Your task to perform on an android device: turn on notifications settings in the gmail app Image 0: 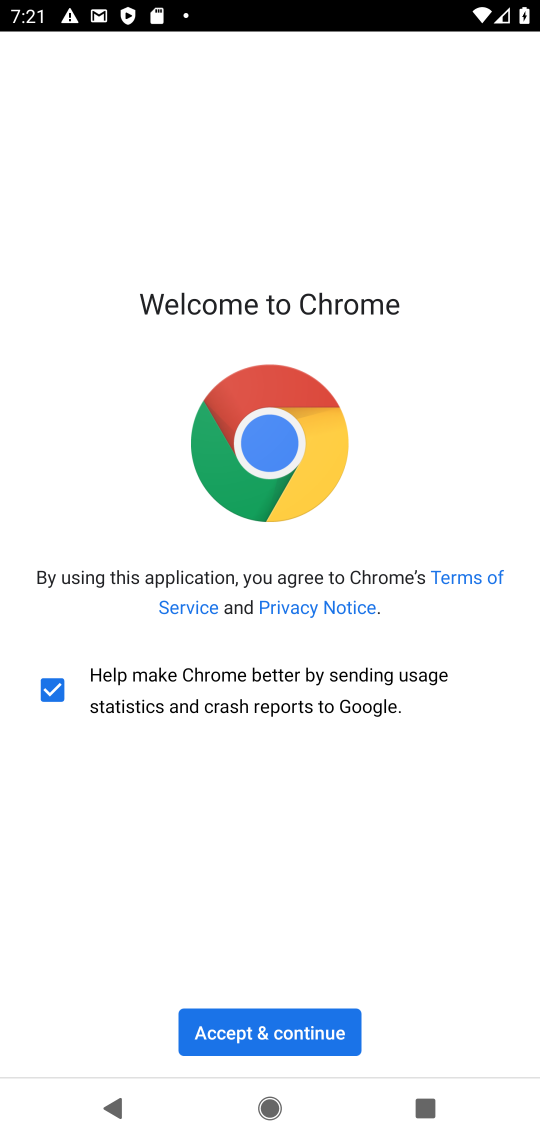
Step 0: press home button
Your task to perform on an android device: turn on notifications settings in the gmail app Image 1: 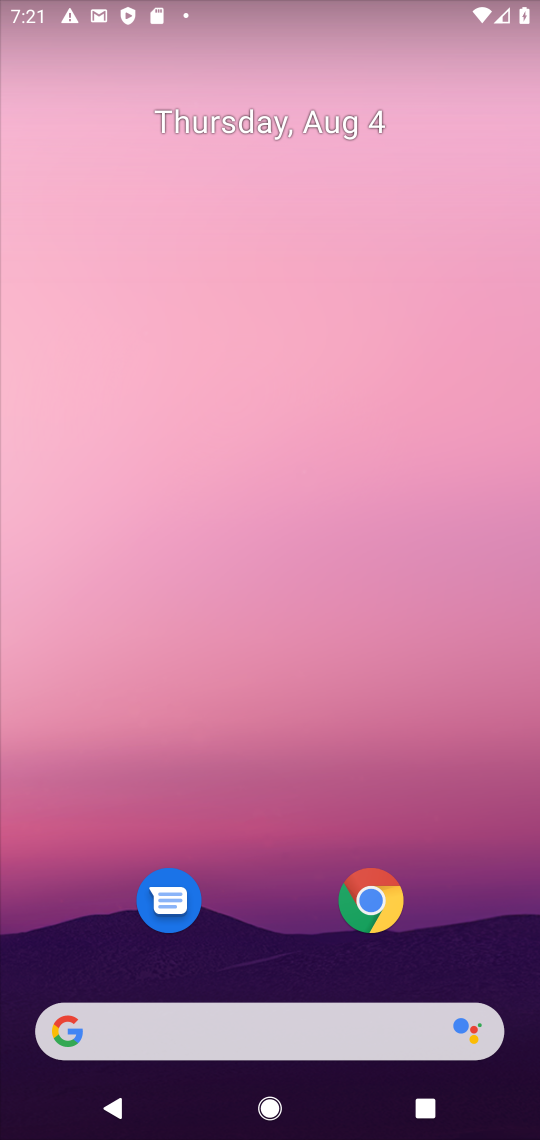
Step 1: drag from (223, 1009) to (342, 162)
Your task to perform on an android device: turn on notifications settings in the gmail app Image 2: 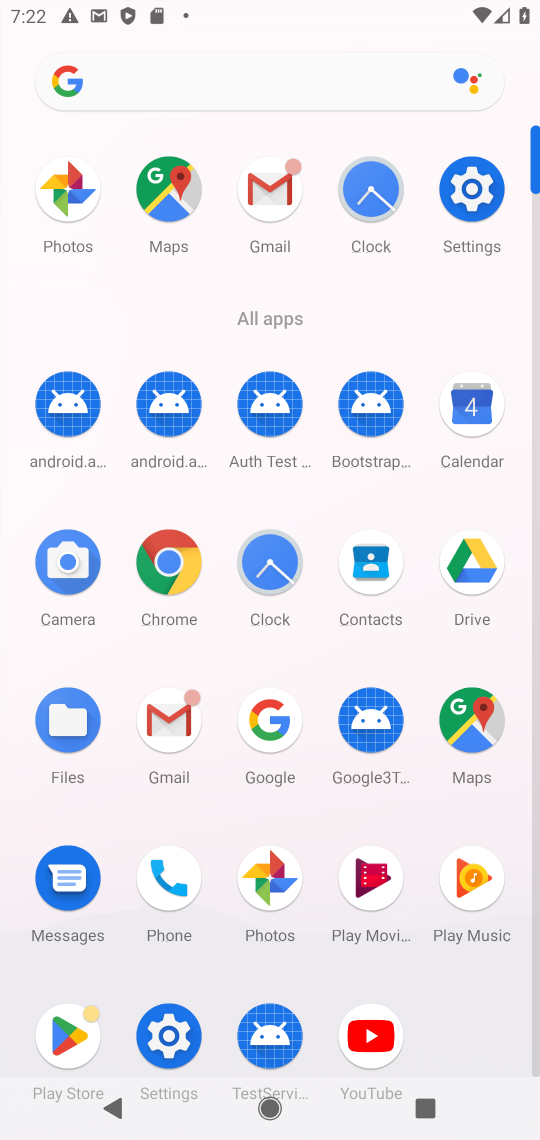
Step 2: click (269, 192)
Your task to perform on an android device: turn on notifications settings in the gmail app Image 3: 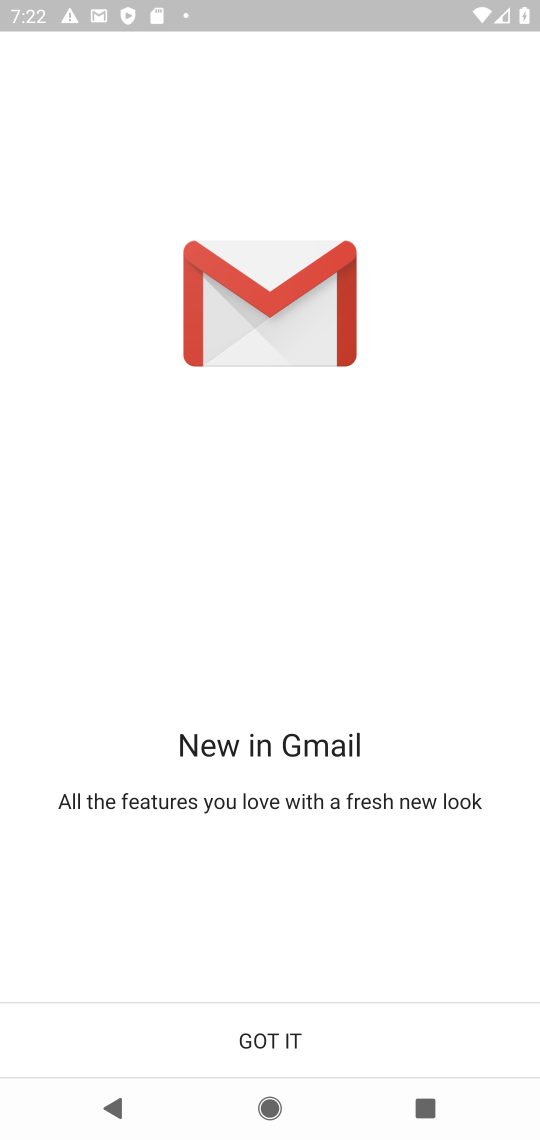
Step 3: click (261, 1034)
Your task to perform on an android device: turn on notifications settings in the gmail app Image 4: 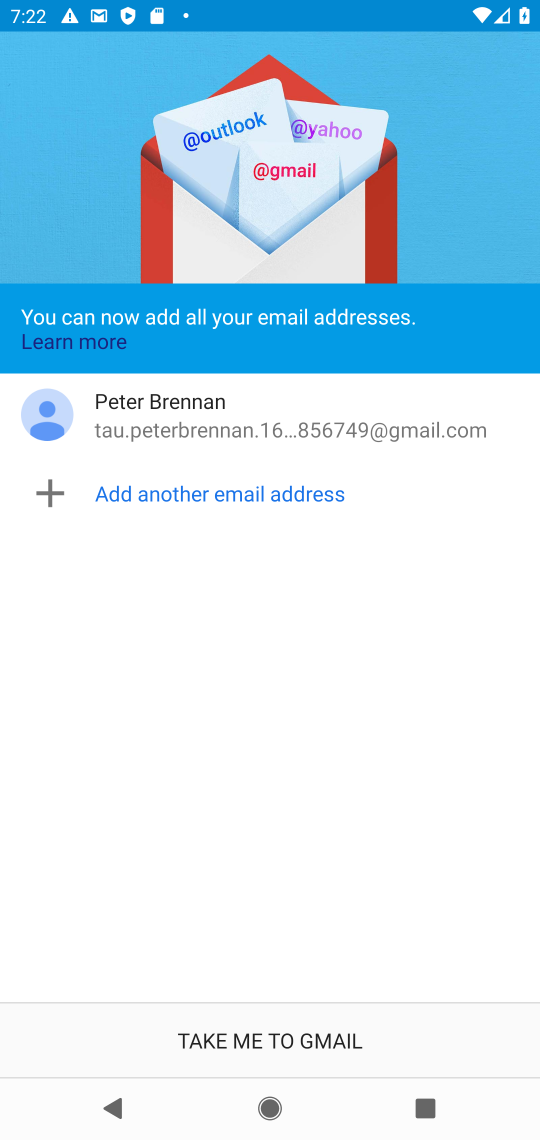
Step 4: click (261, 1034)
Your task to perform on an android device: turn on notifications settings in the gmail app Image 5: 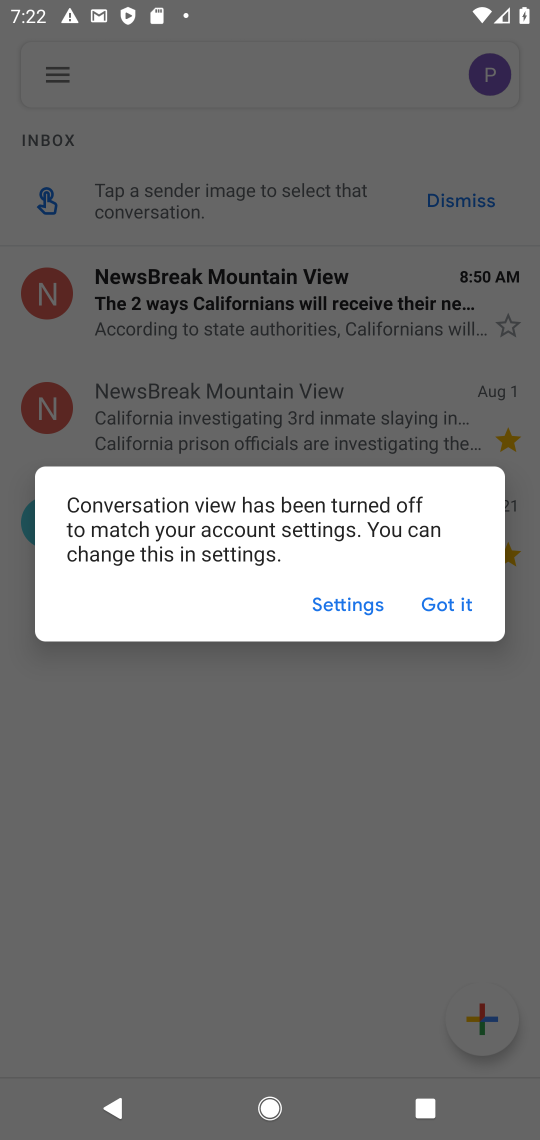
Step 5: click (445, 607)
Your task to perform on an android device: turn on notifications settings in the gmail app Image 6: 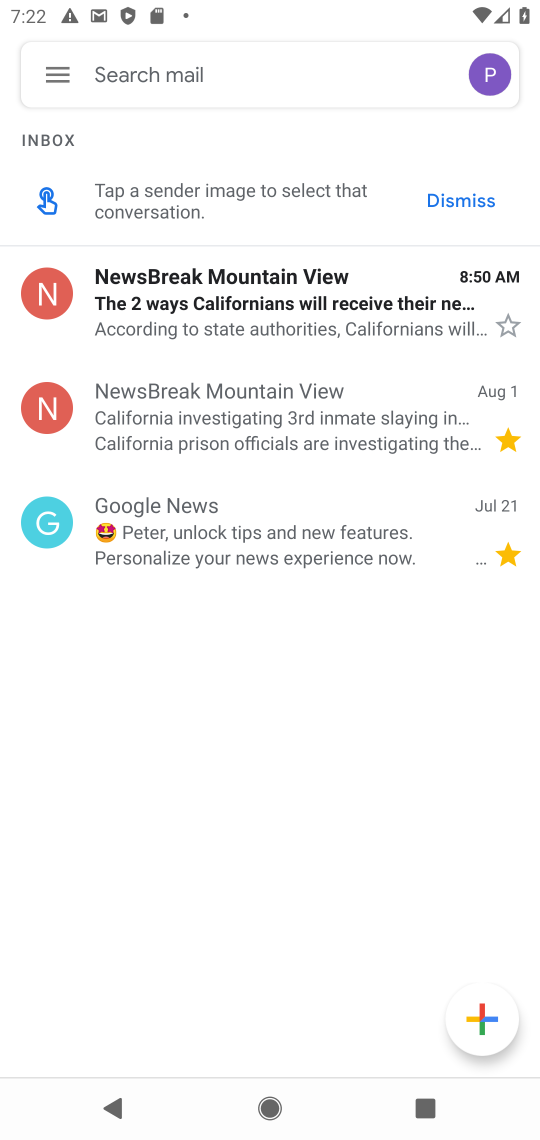
Step 6: click (58, 75)
Your task to perform on an android device: turn on notifications settings in the gmail app Image 7: 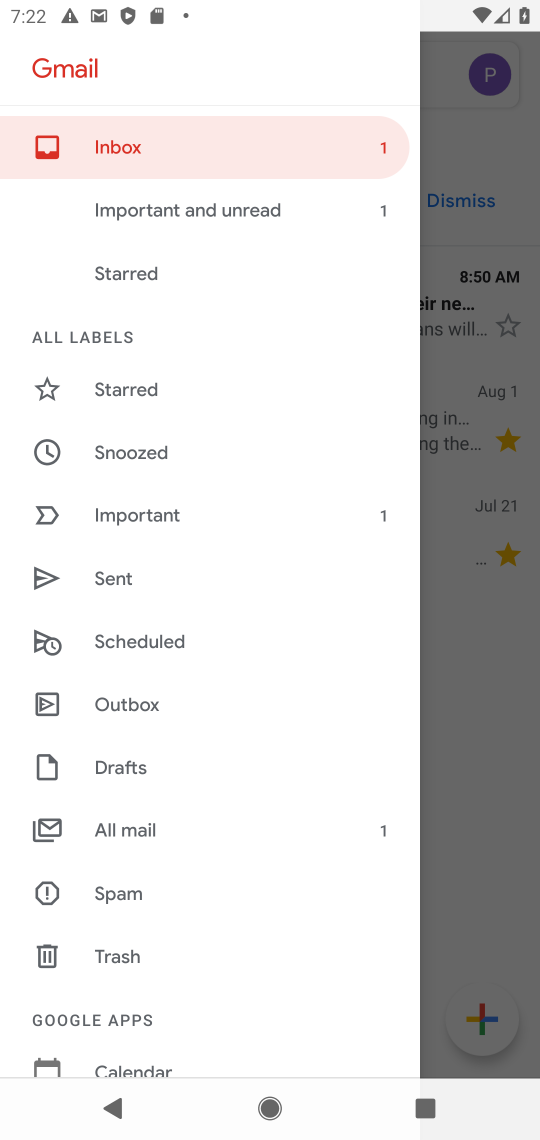
Step 7: drag from (130, 868) to (192, 722)
Your task to perform on an android device: turn on notifications settings in the gmail app Image 8: 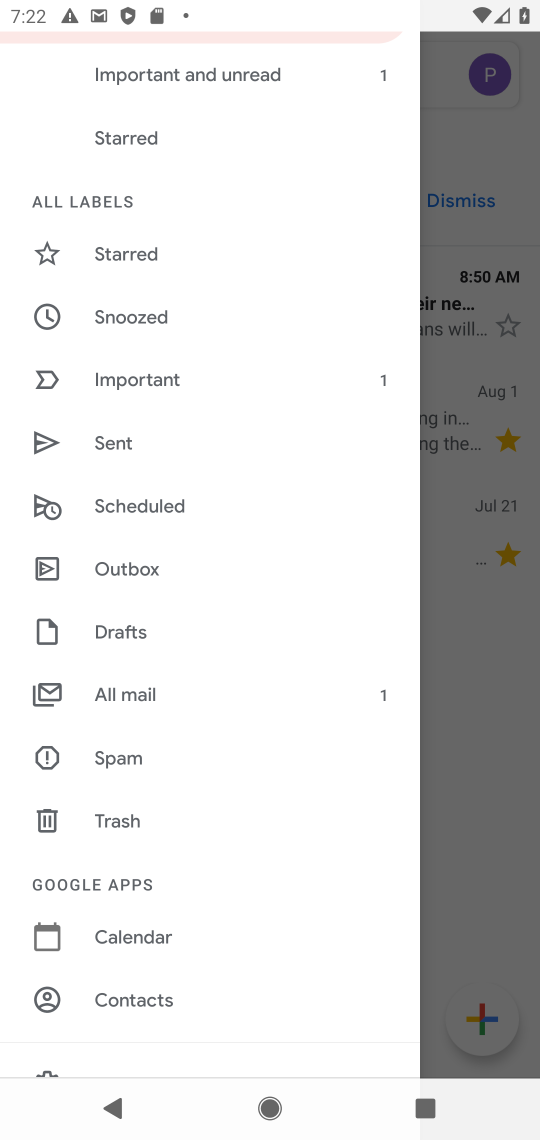
Step 8: drag from (145, 974) to (207, 817)
Your task to perform on an android device: turn on notifications settings in the gmail app Image 9: 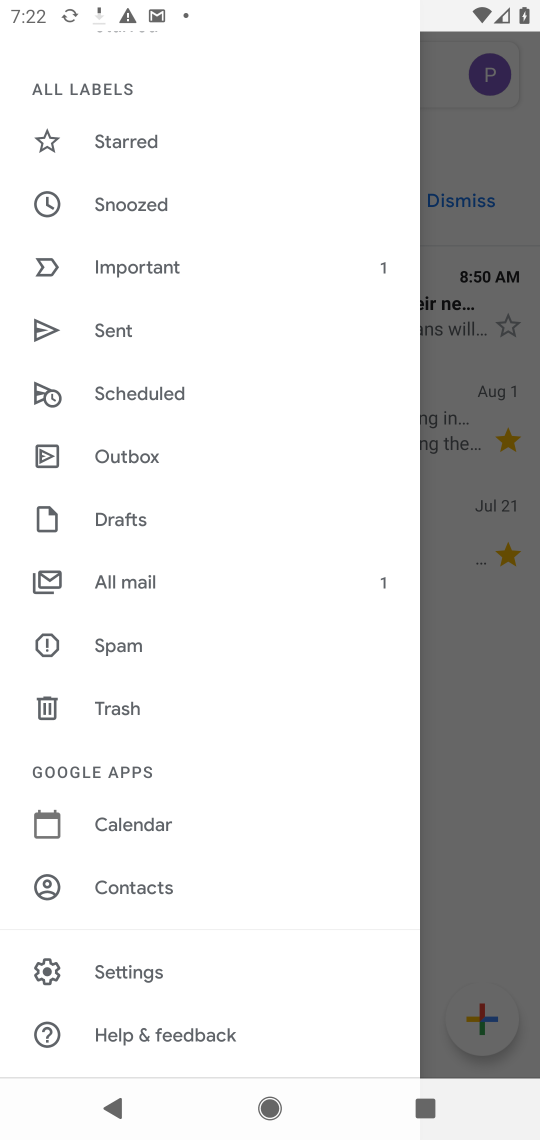
Step 9: click (127, 974)
Your task to perform on an android device: turn on notifications settings in the gmail app Image 10: 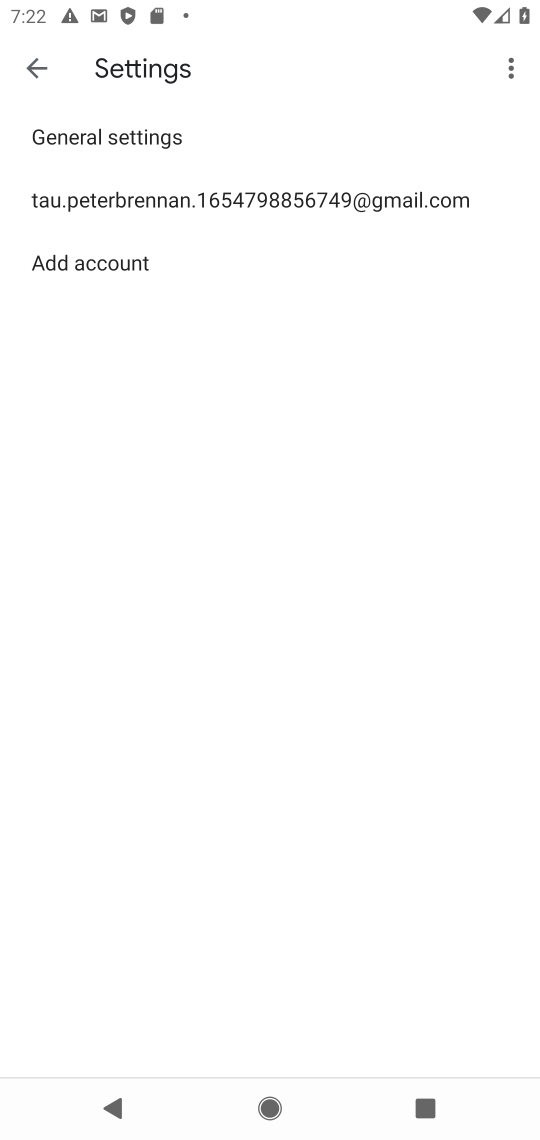
Step 10: click (265, 196)
Your task to perform on an android device: turn on notifications settings in the gmail app Image 11: 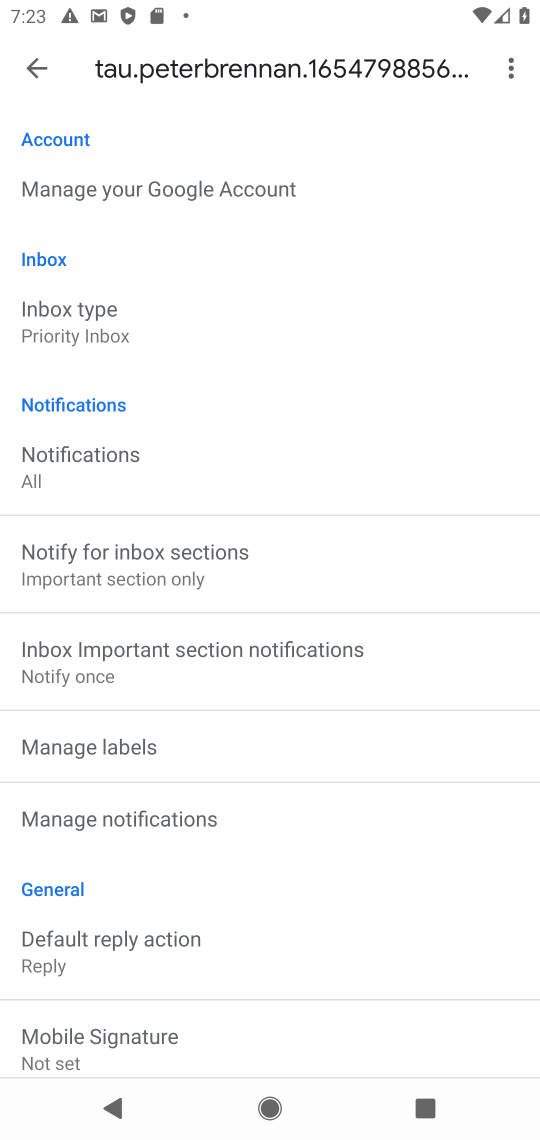
Step 11: click (143, 816)
Your task to perform on an android device: turn on notifications settings in the gmail app Image 12: 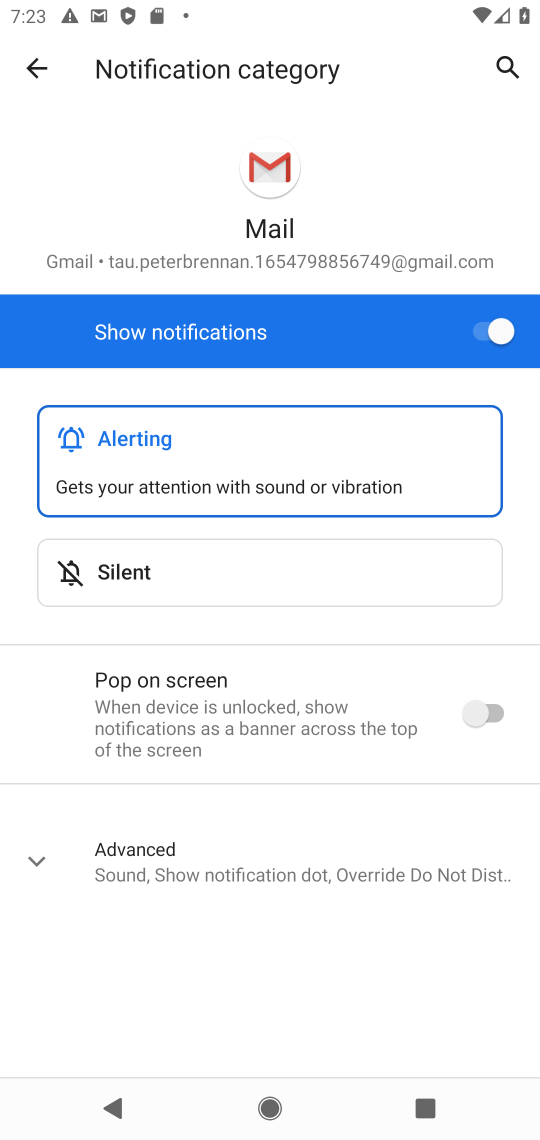
Step 12: task complete